Your task to perform on an android device: add a contact Image 0: 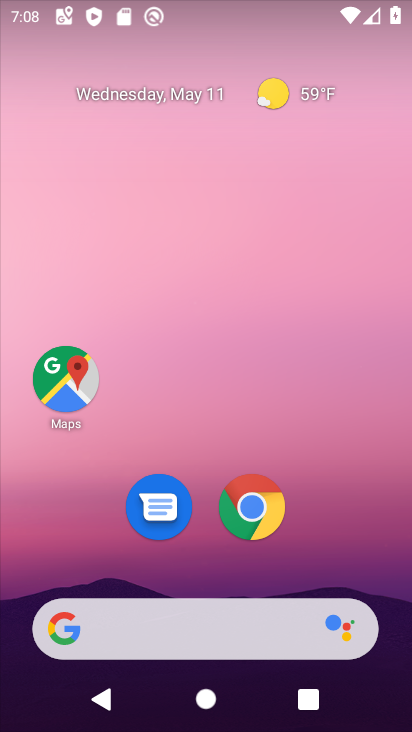
Step 0: click (138, 140)
Your task to perform on an android device: add a contact Image 1: 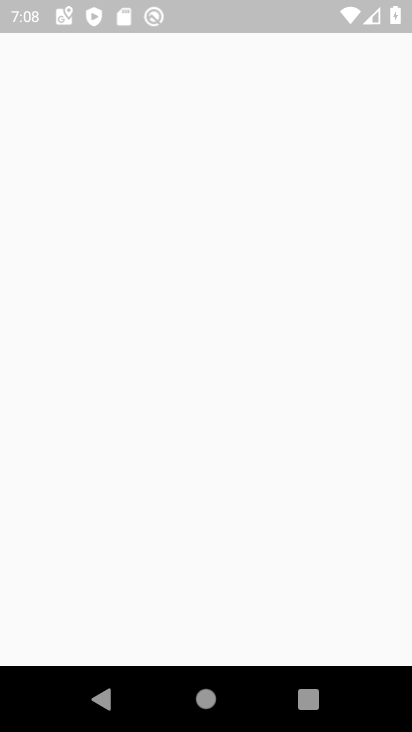
Step 1: press home button
Your task to perform on an android device: add a contact Image 2: 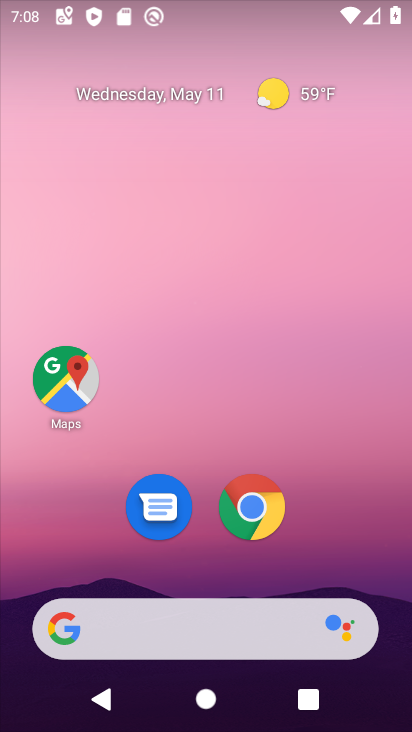
Step 2: drag from (279, 654) to (213, 192)
Your task to perform on an android device: add a contact Image 3: 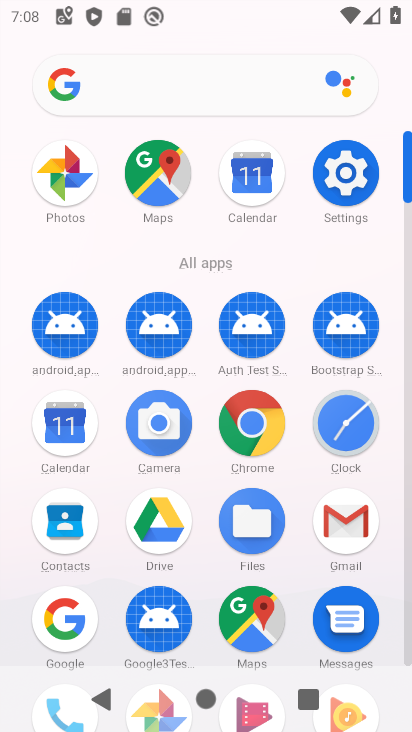
Step 3: drag from (116, 564) to (98, 450)
Your task to perform on an android device: add a contact Image 4: 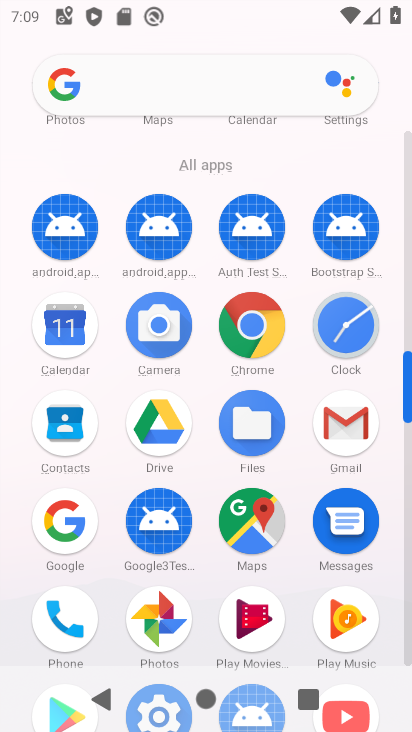
Step 4: click (84, 607)
Your task to perform on an android device: add a contact Image 5: 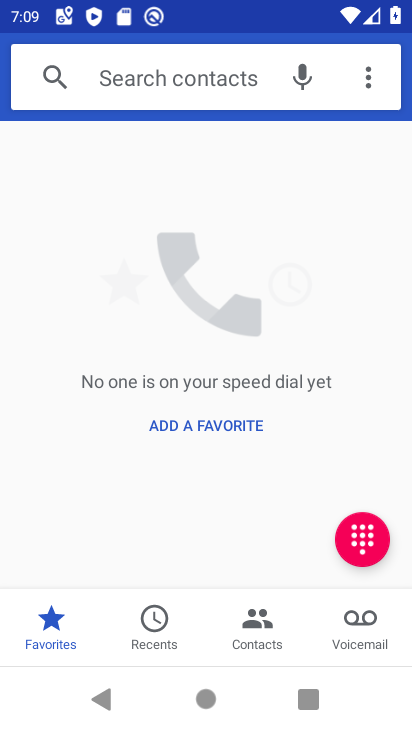
Step 5: click (269, 617)
Your task to perform on an android device: add a contact Image 6: 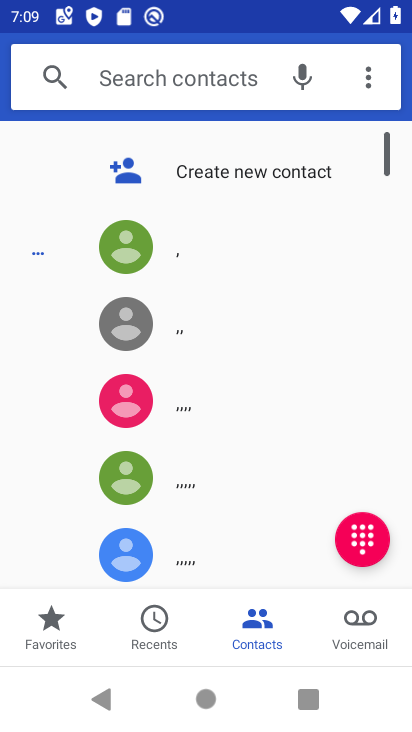
Step 6: click (189, 178)
Your task to perform on an android device: add a contact Image 7: 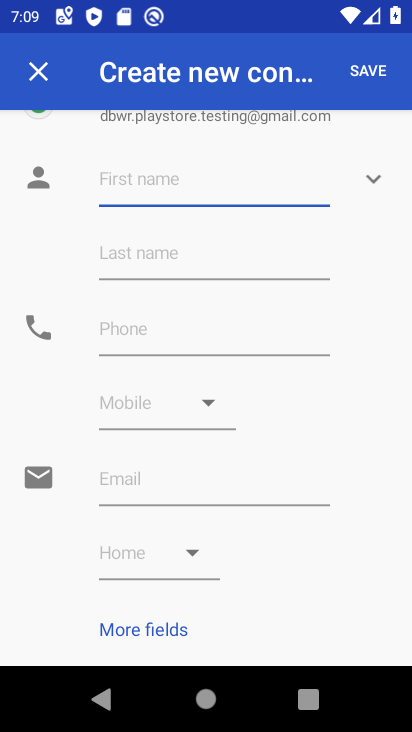
Step 7: click (184, 181)
Your task to perform on an android device: add a contact Image 8: 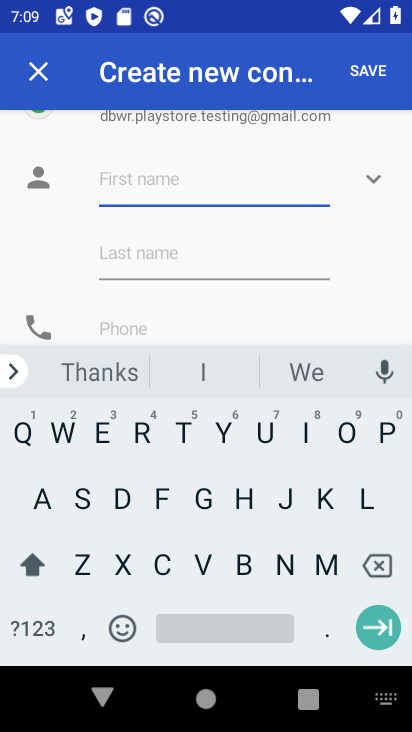
Step 8: click (281, 500)
Your task to perform on an android device: add a contact Image 9: 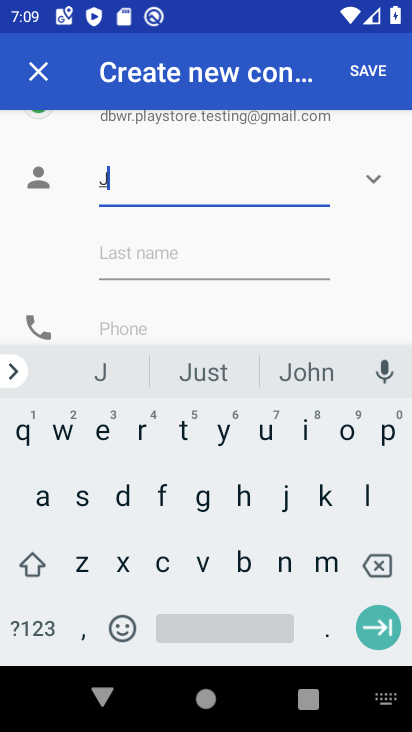
Step 9: click (318, 501)
Your task to perform on an android device: add a contact Image 10: 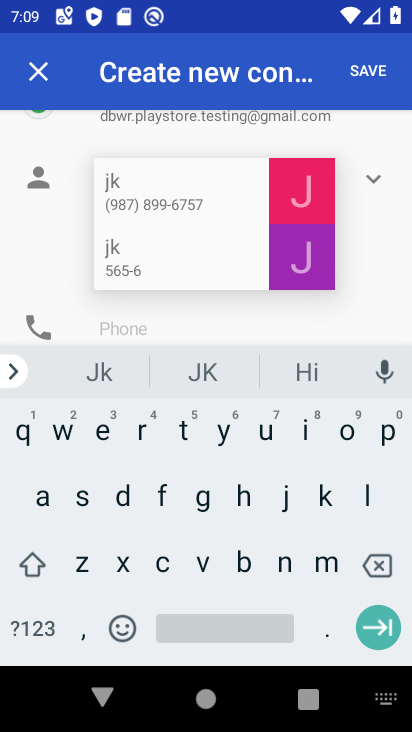
Step 10: click (148, 314)
Your task to perform on an android device: add a contact Image 11: 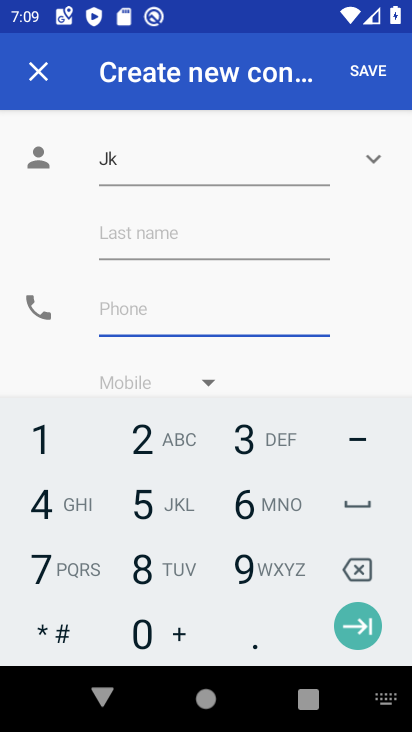
Step 11: click (171, 501)
Your task to perform on an android device: add a contact Image 12: 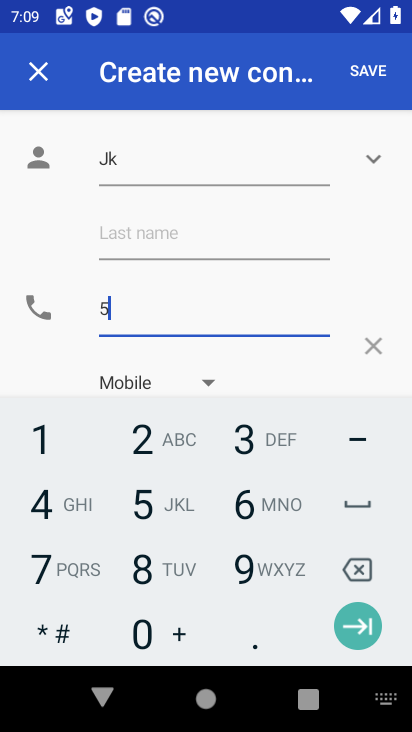
Step 12: click (49, 491)
Your task to perform on an android device: add a contact Image 13: 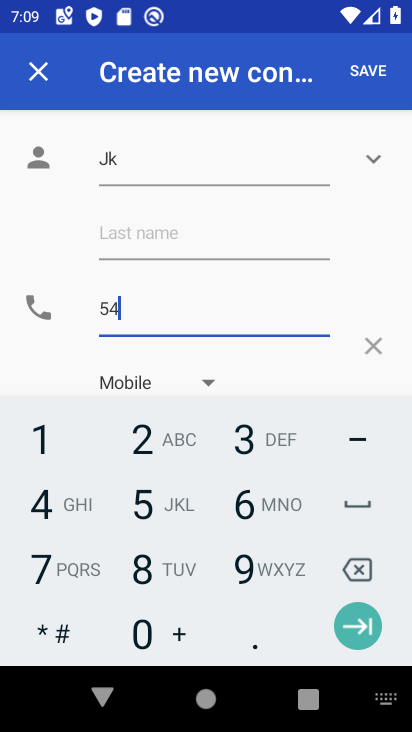
Step 13: click (144, 566)
Your task to perform on an android device: add a contact Image 14: 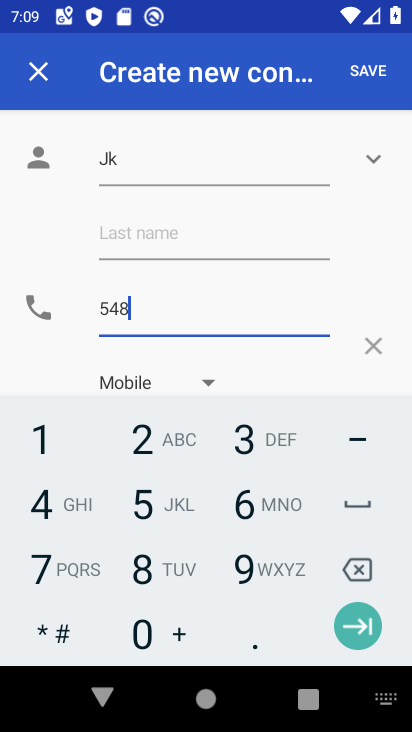
Step 14: click (146, 450)
Your task to perform on an android device: add a contact Image 15: 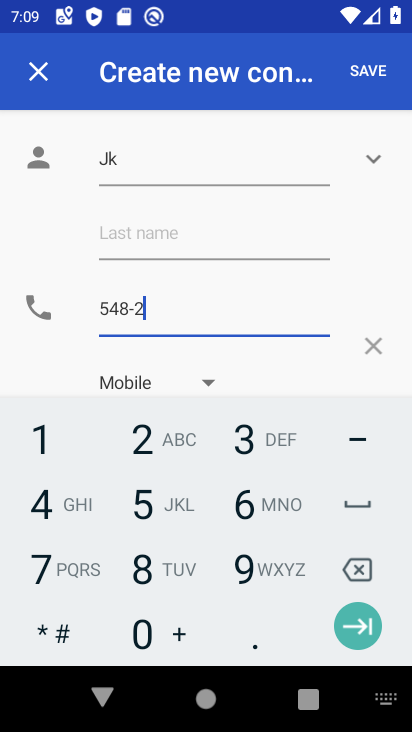
Step 15: click (43, 438)
Your task to perform on an android device: add a contact Image 16: 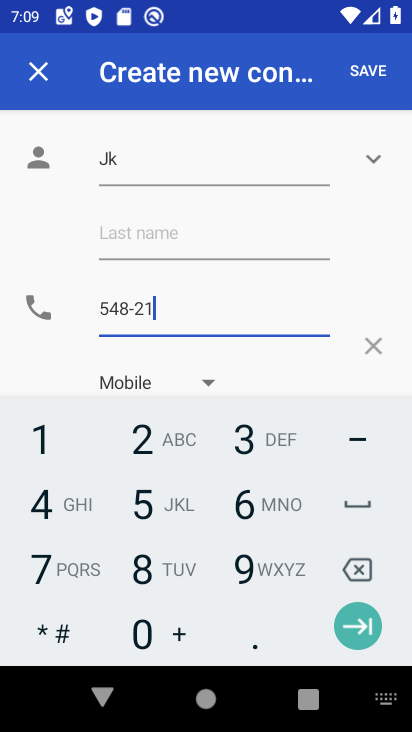
Step 16: click (65, 517)
Your task to perform on an android device: add a contact Image 17: 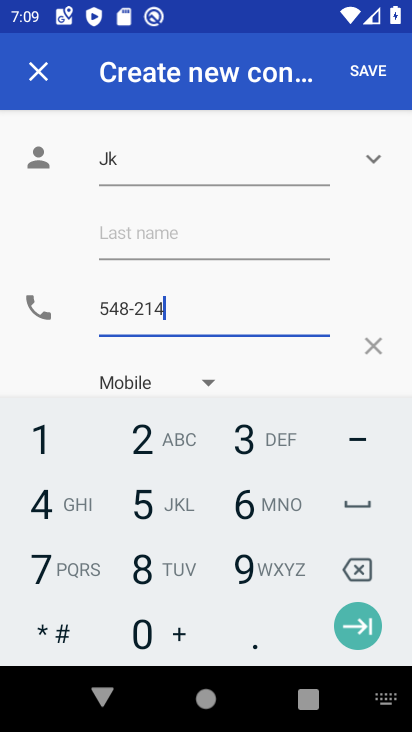
Step 17: click (175, 556)
Your task to perform on an android device: add a contact Image 18: 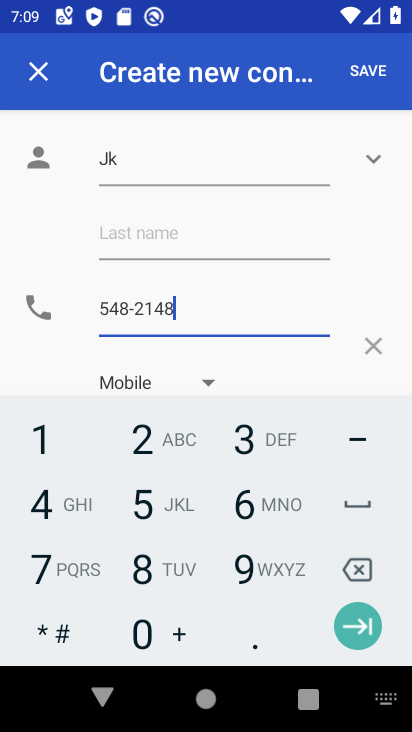
Step 18: click (266, 500)
Your task to perform on an android device: add a contact Image 19: 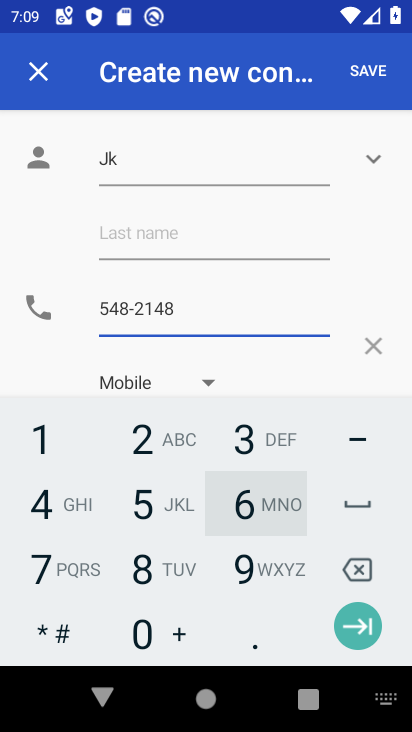
Step 19: click (164, 494)
Your task to perform on an android device: add a contact Image 20: 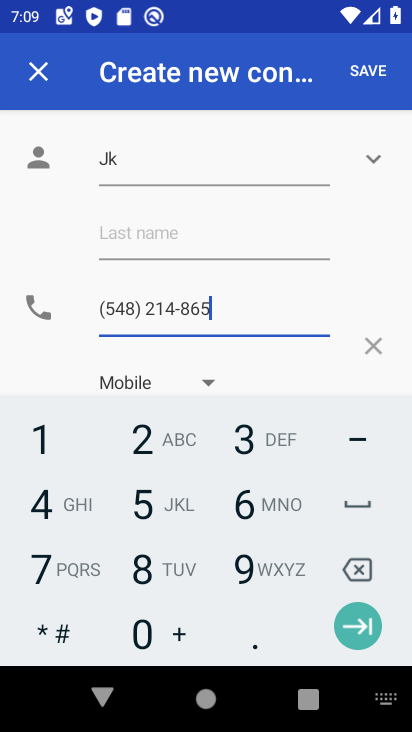
Step 20: click (377, 63)
Your task to perform on an android device: add a contact Image 21: 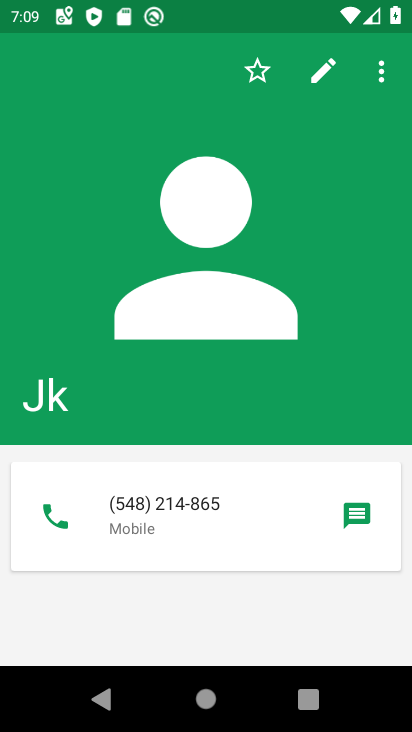
Step 21: task complete